Your task to perform on an android device: Open Google Maps Image 0: 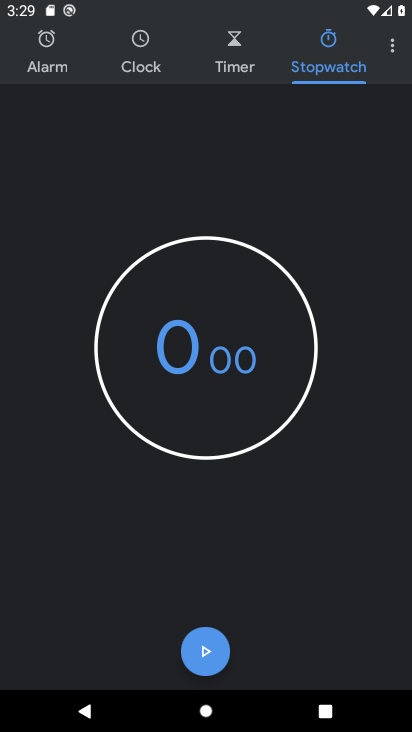
Step 0: press home button
Your task to perform on an android device: Open Google Maps Image 1: 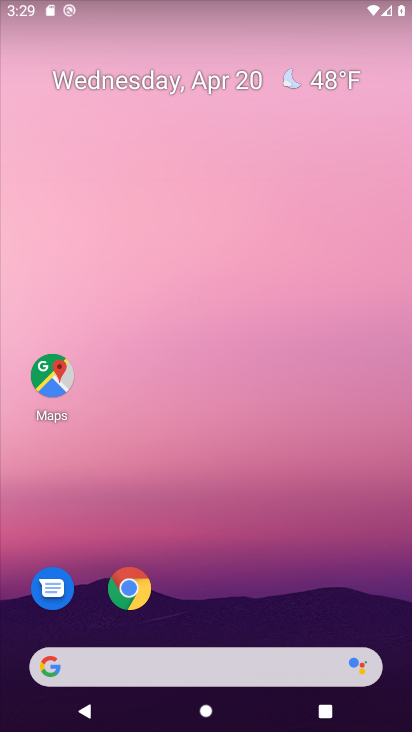
Step 1: drag from (327, 582) to (338, 129)
Your task to perform on an android device: Open Google Maps Image 2: 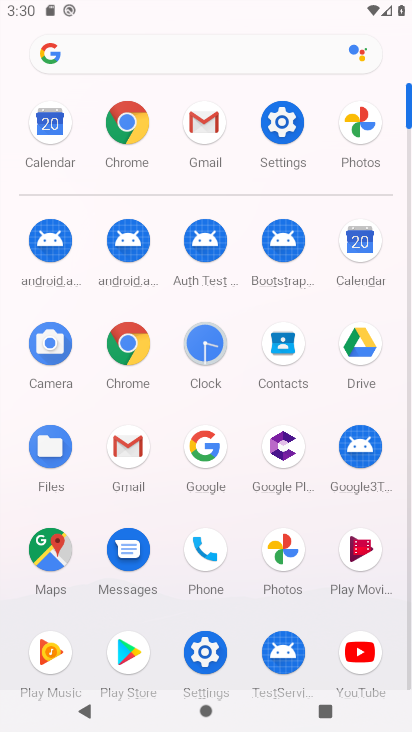
Step 2: click (53, 563)
Your task to perform on an android device: Open Google Maps Image 3: 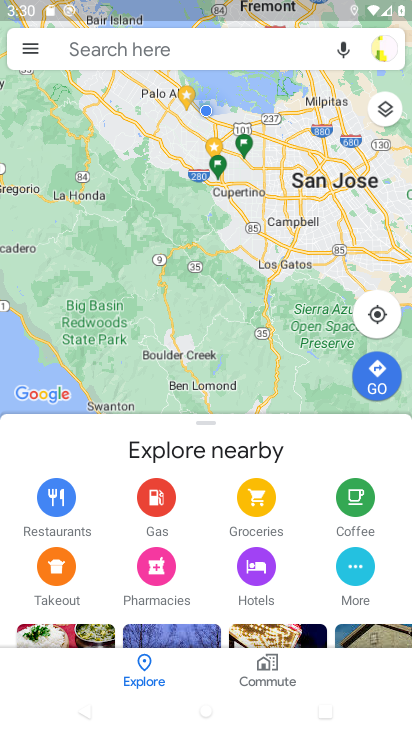
Step 3: task complete